Your task to perform on an android device: turn on the 24-hour format for clock Image 0: 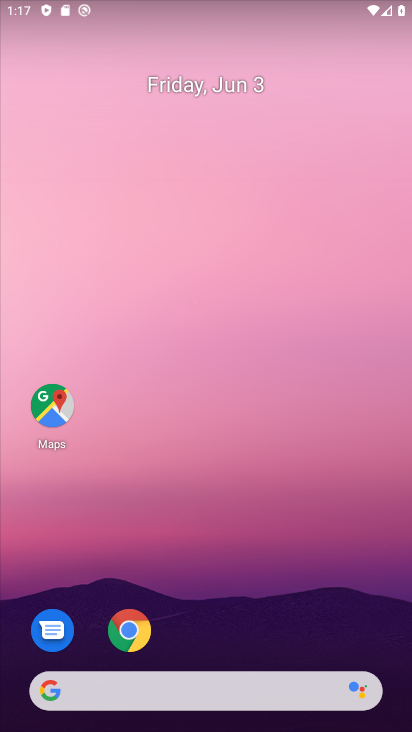
Step 0: drag from (266, 619) to (256, 173)
Your task to perform on an android device: turn on the 24-hour format for clock Image 1: 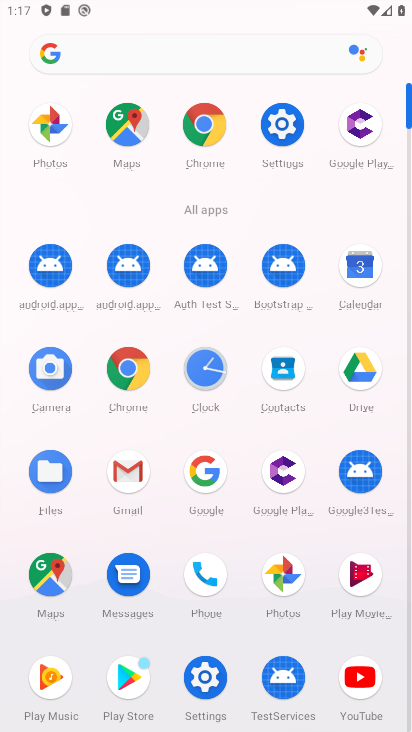
Step 1: click (217, 372)
Your task to perform on an android device: turn on the 24-hour format for clock Image 2: 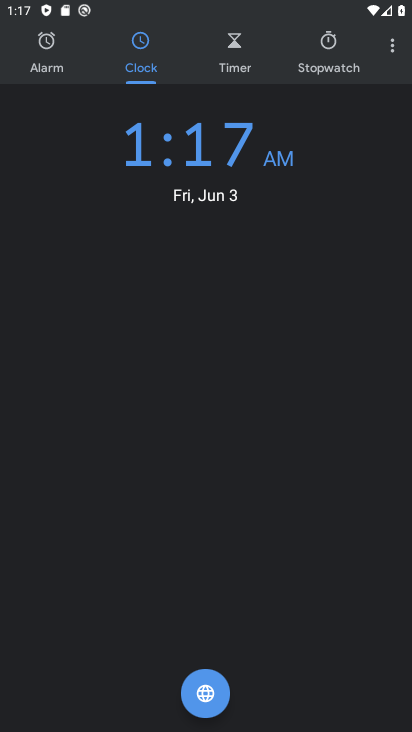
Step 2: click (394, 56)
Your task to perform on an android device: turn on the 24-hour format for clock Image 3: 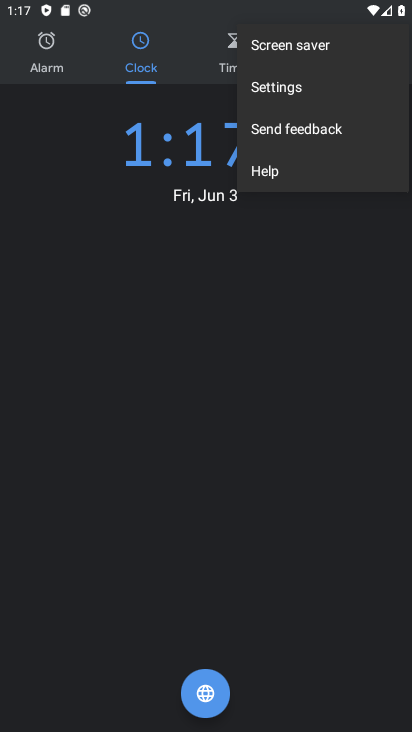
Step 3: click (366, 87)
Your task to perform on an android device: turn on the 24-hour format for clock Image 4: 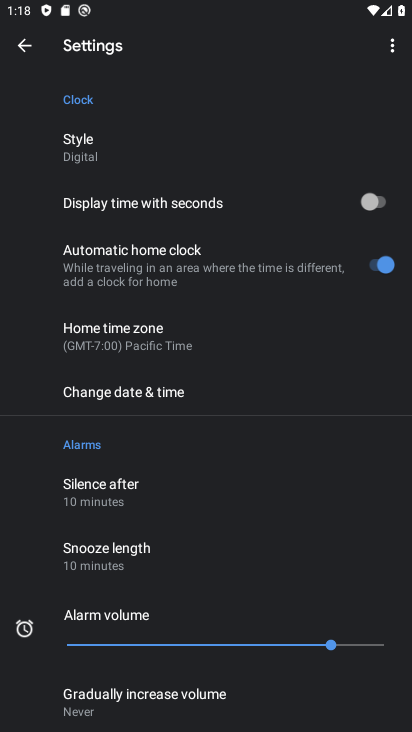
Step 4: click (259, 399)
Your task to perform on an android device: turn on the 24-hour format for clock Image 5: 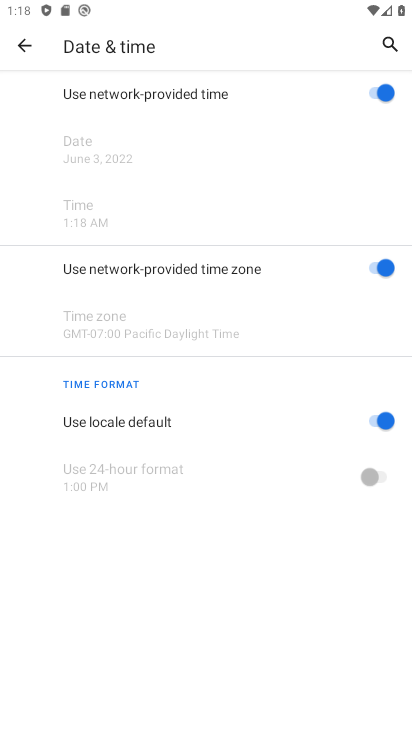
Step 5: click (379, 427)
Your task to perform on an android device: turn on the 24-hour format for clock Image 6: 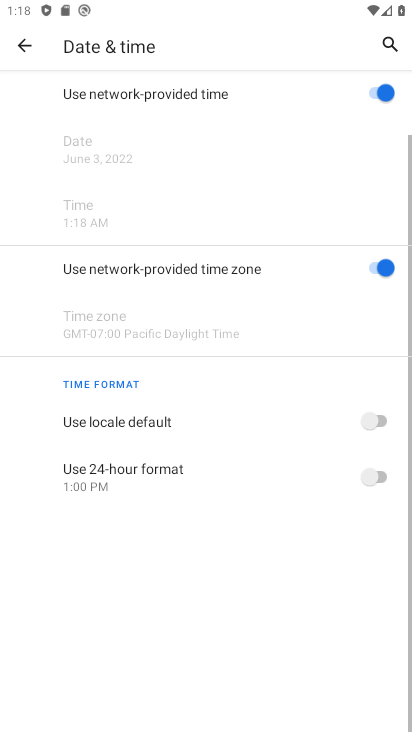
Step 6: click (379, 482)
Your task to perform on an android device: turn on the 24-hour format for clock Image 7: 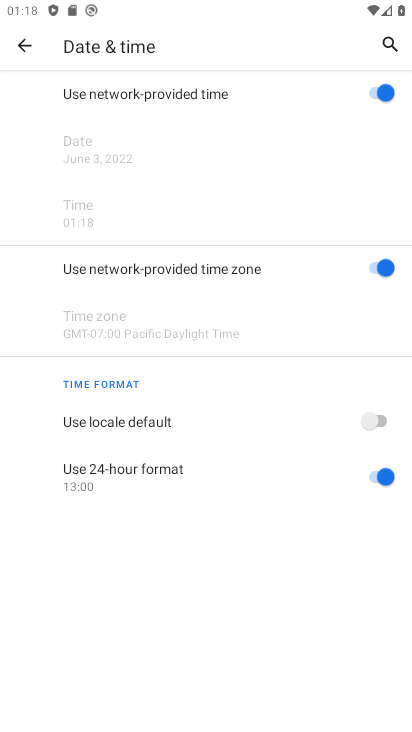
Step 7: task complete